Your task to perform on an android device: check android version Image 0: 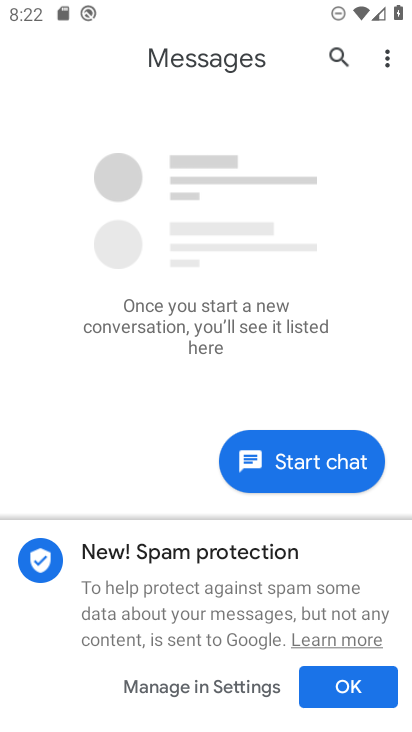
Step 0: press back button
Your task to perform on an android device: check android version Image 1: 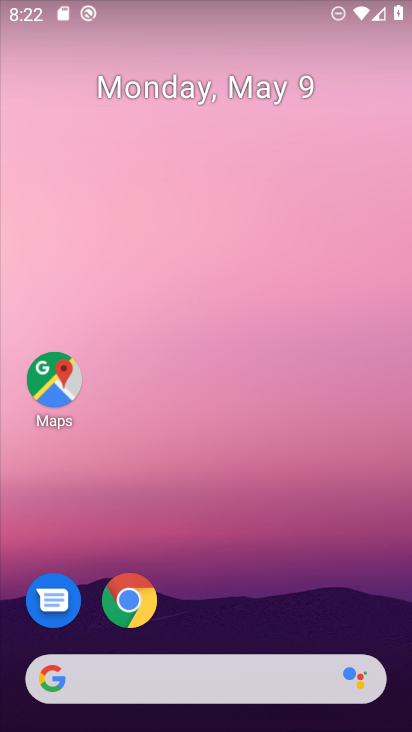
Step 1: drag from (225, 605) to (227, 50)
Your task to perform on an android device: check android version Image 2: 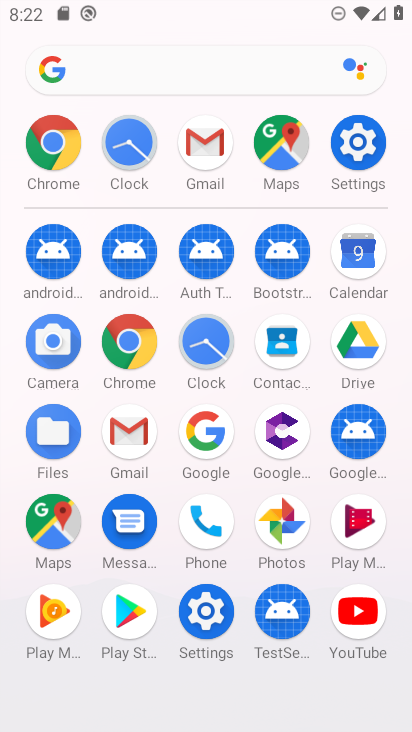
Step 2: click (203, 608)
Your task to perform on an android device: check android version Image 3: 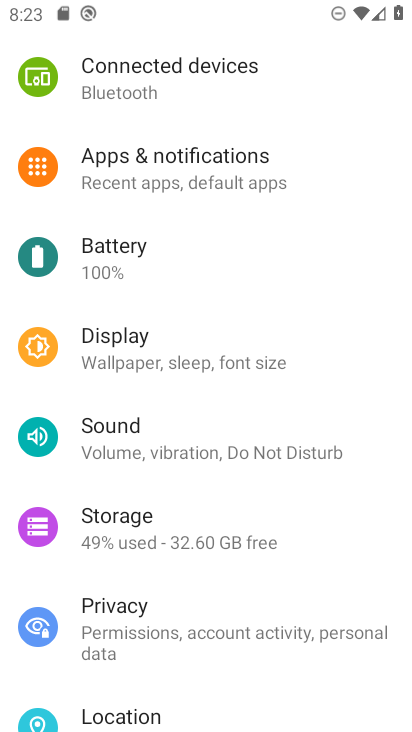
Step 3: drag from (248, 617) to (242, 143)
Your task to perform on an android device: check android version Image 4: 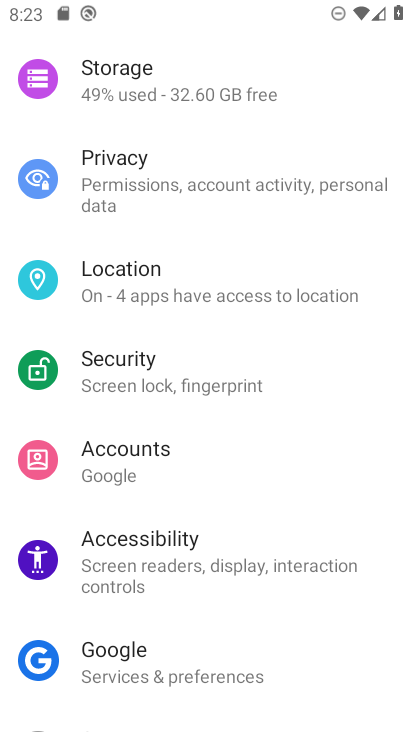
Step 4: drag from (210, 630) to (205, 152)
Your task to perform on an android device: check android version Image 5: 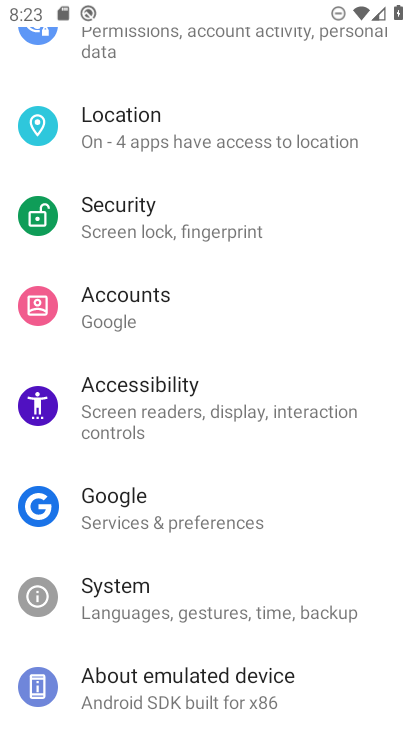
Step 5: click (175, 678)
Your task to perform on an android device: check android version Image 6: 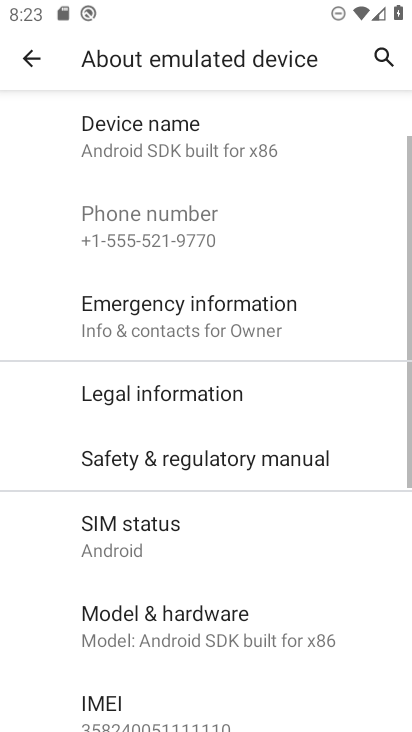
Step 6: drag from (262, 555) to (257, 193)
Your task to perform on an android device: check android version Image 7: 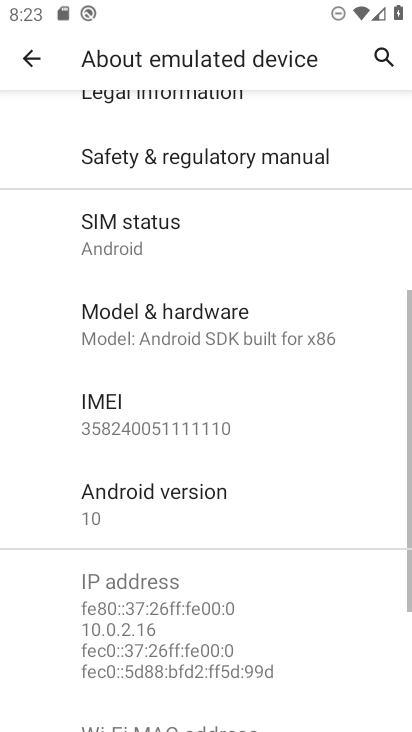
Step 7: click (169, 497)
Your task to perform on an android device: check android version Image 8: 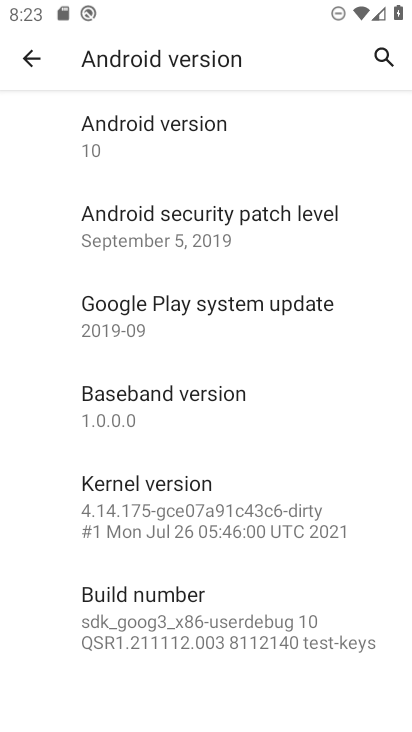
Step 8: task complete